Your task to perform on an android device: Go to Android settings Image 0: 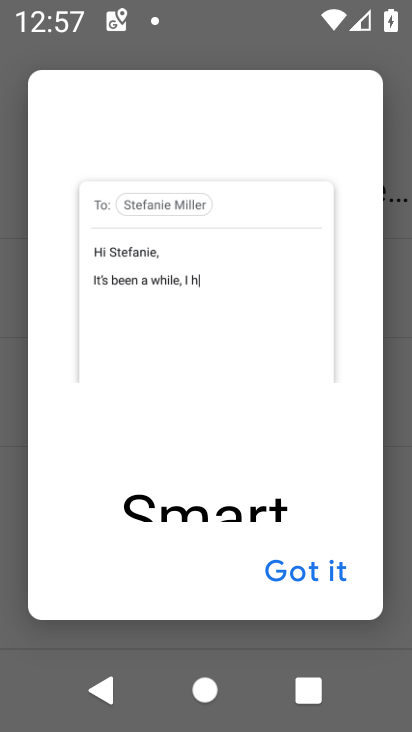
Step 0: press home button
Your task to perform on an android device: Go to Android settings Image 1: 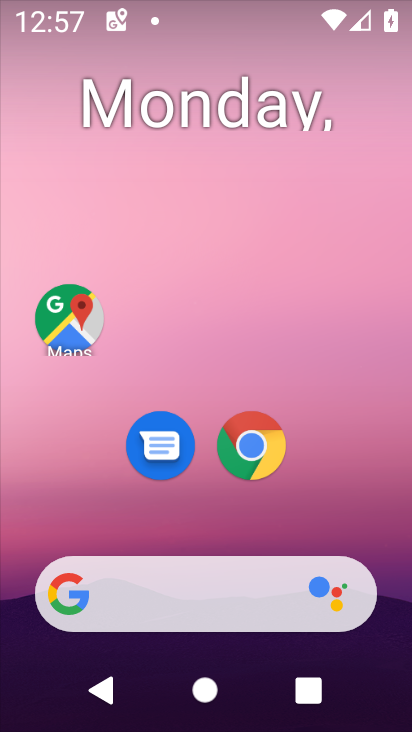
Step 1: drag from (323, 512) to (178, 2)
Your task to perform on an android device: Go to Android settings Image 2: 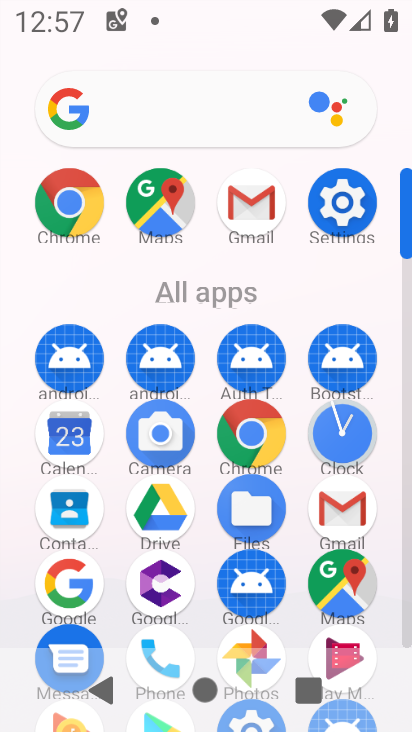
Step 2: click (347, 201)
Your task to perform on an android device: Go to Android settings Image 3: 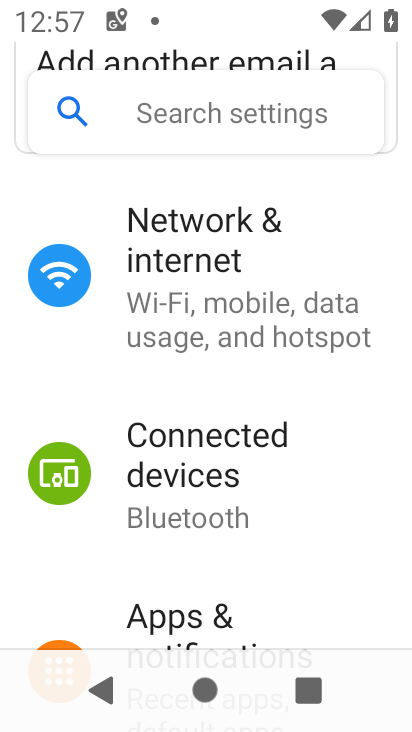
Step 3: task complete